Your task to perform on an android device: turn on data saver in the chrome app Image 0: 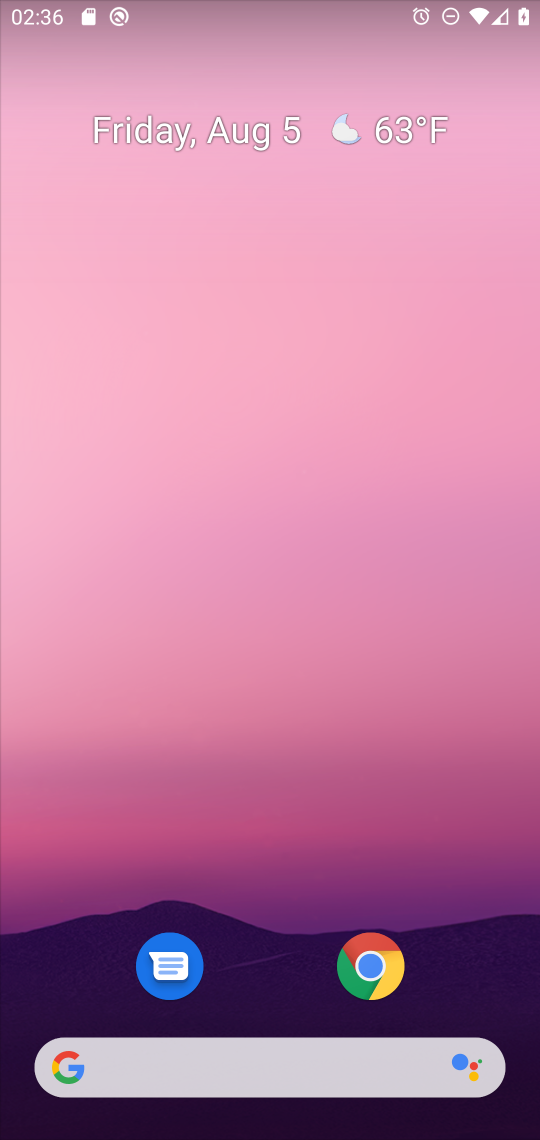
Step 0: click (366, 966)
Your task to perform on an android device: turn on data saver in the chrome app Image 1: 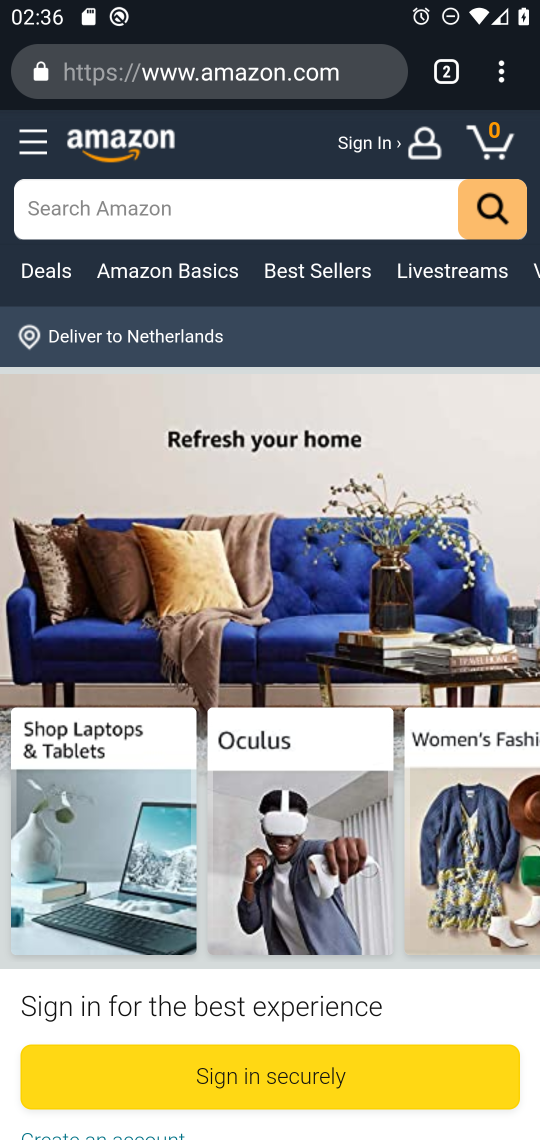
Step 1: click (494, 70)
Your task to perform on an android device: turn on data saver in the chrome app Image 2: 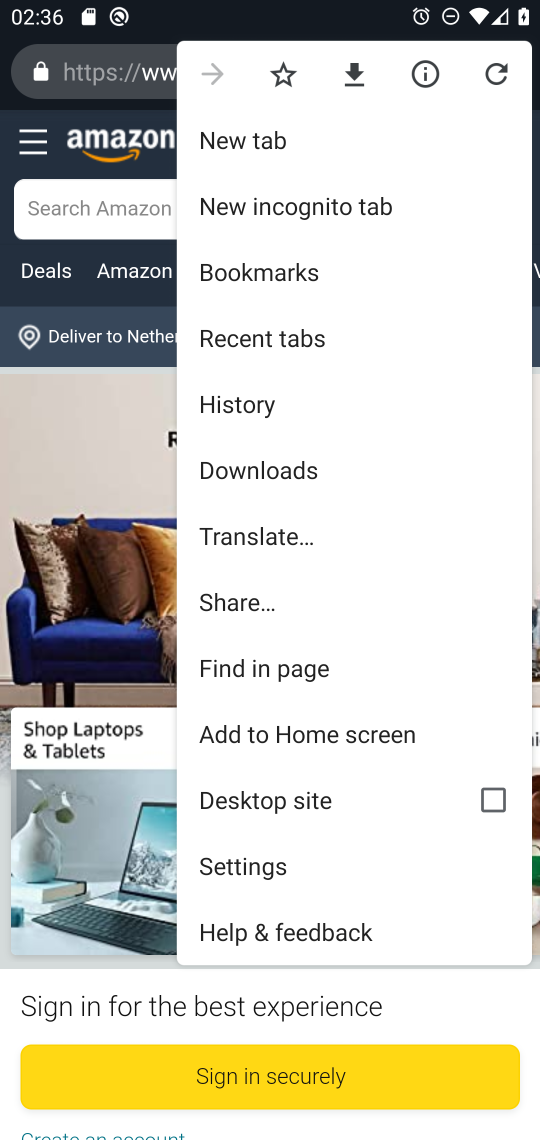
Step 2: click (273, 854)
Your task to perform on an android device: turn on data saver in the chrome app Image 3: 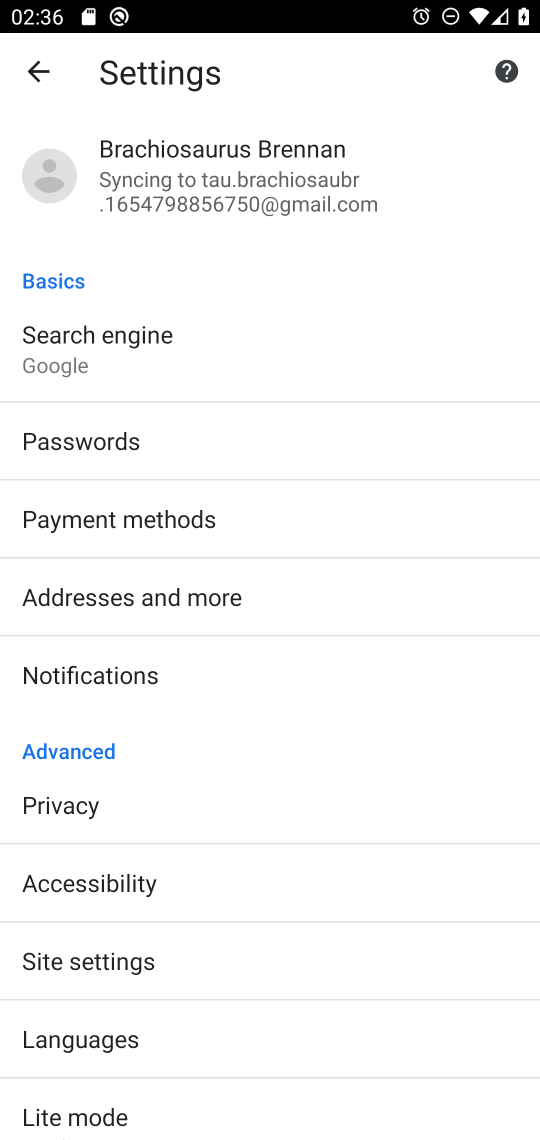
Step 3: click (176, 1112)
Your task to perform on an android device: turn on data saver in the chrome app Image 4: 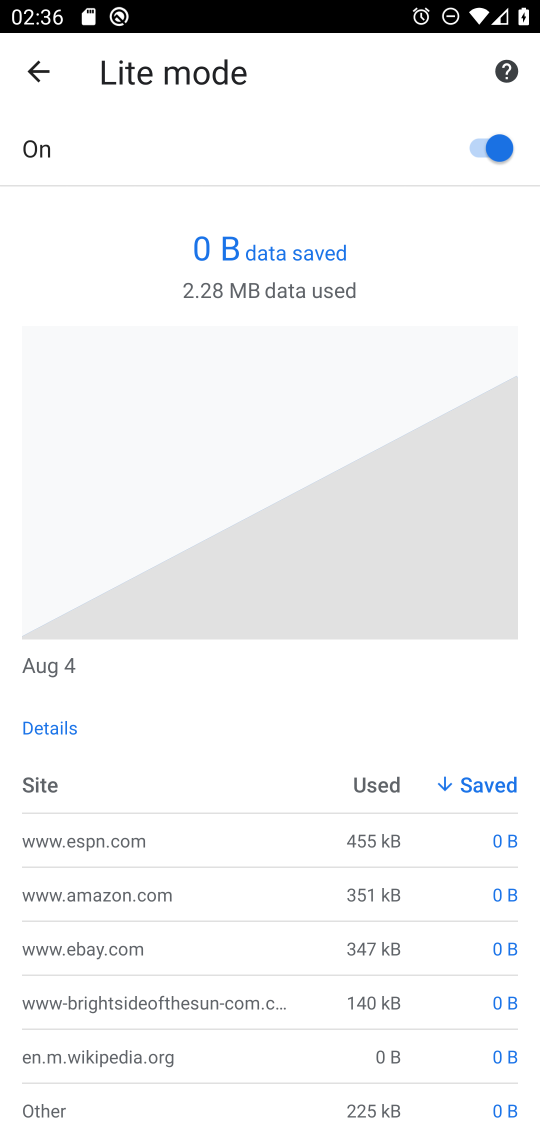
Step 4: task complete